Your task to perform on an android device: Go to eBay Image 0: 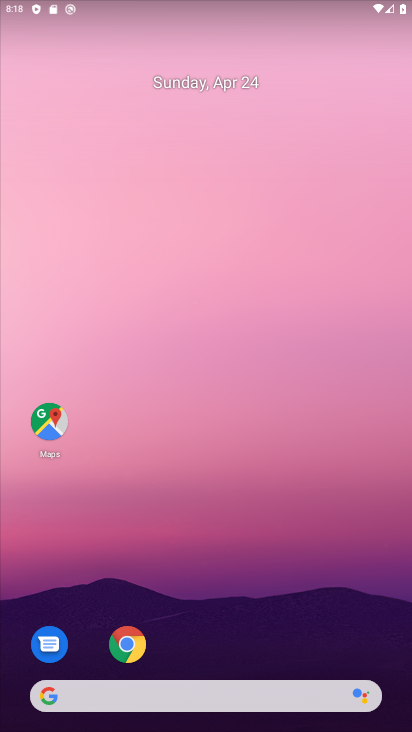
Step 0: drag from (343, 625) to (249, 223)
Your task to perform on an android device: Go to eBay Image 1: 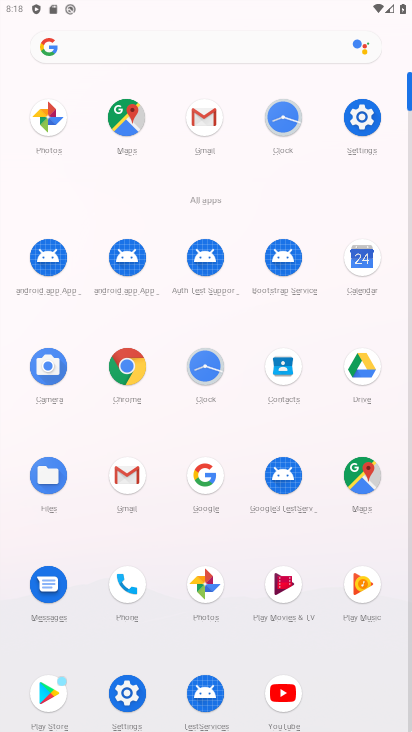
Step 1: click (129, 363)
Your task to perform on an android device: Go to eBay Image 2: 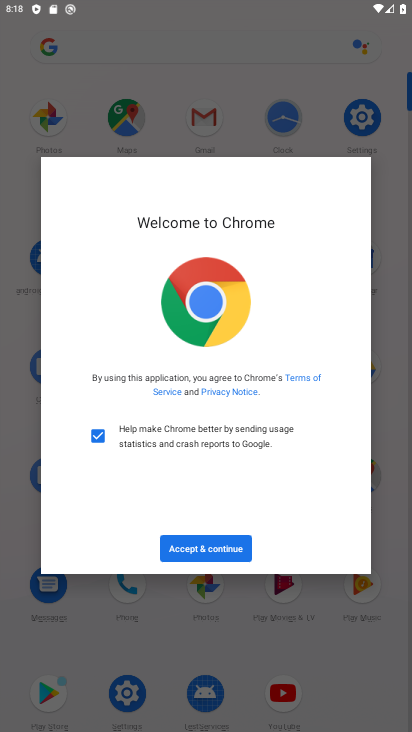
Step 2: click (181, 550)
Your task to perform on an android device: Go to eBay Image 3: 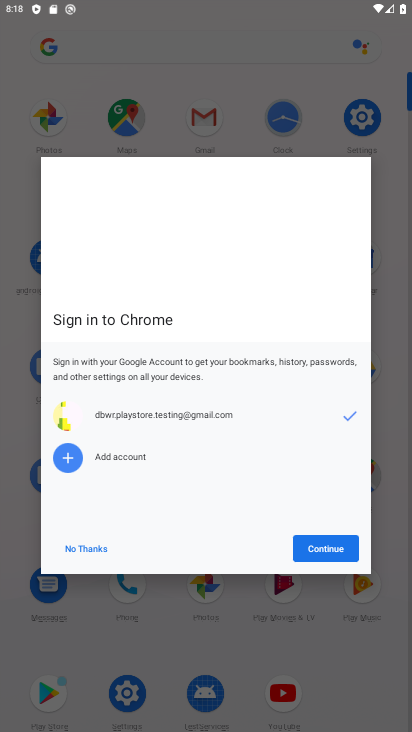
Step 3: click (352, 557)
Your task to perform on an android device: Go to eBay Image 4: 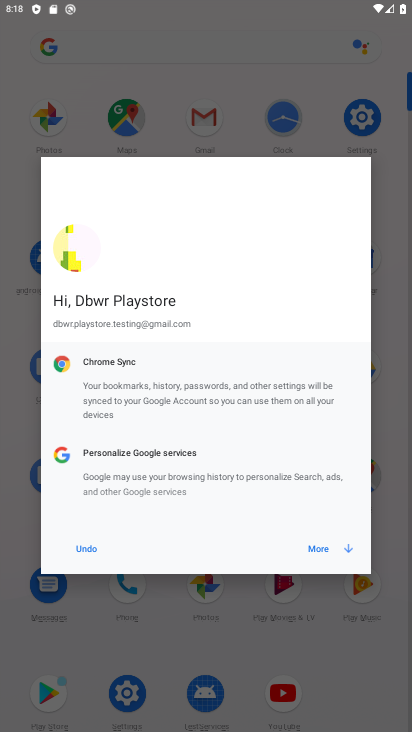
Step 4: click (344, 552)
Your task to perform on an android device: Go to eBay Image 5: 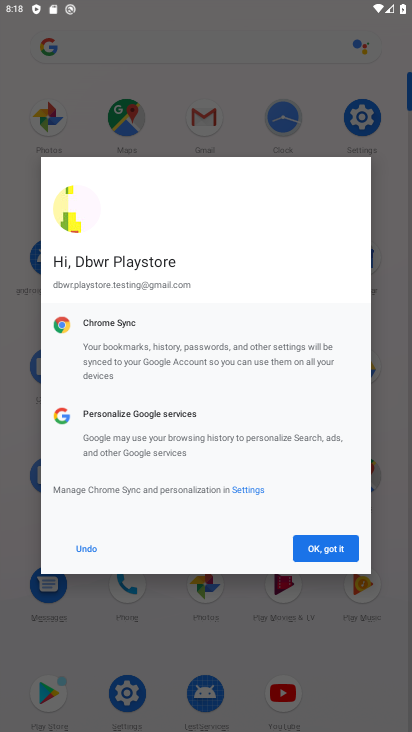
Step 5: click (344, 552)
Your task to perform on an android device: Go to eBay Image 6: 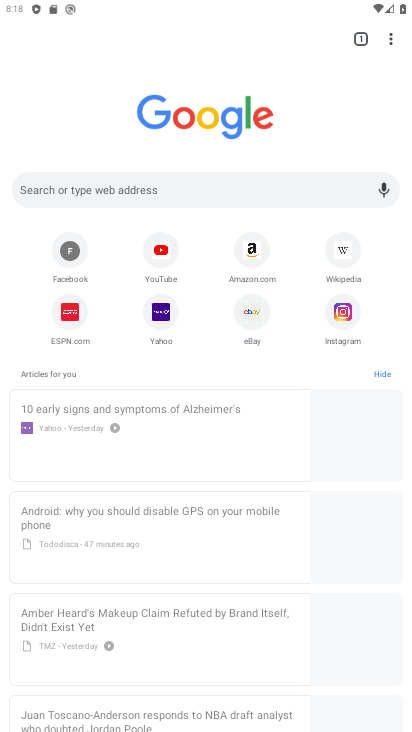
Step 6: click (253, 327)
Your task to perform on an android device: Go to eBay Image 7: 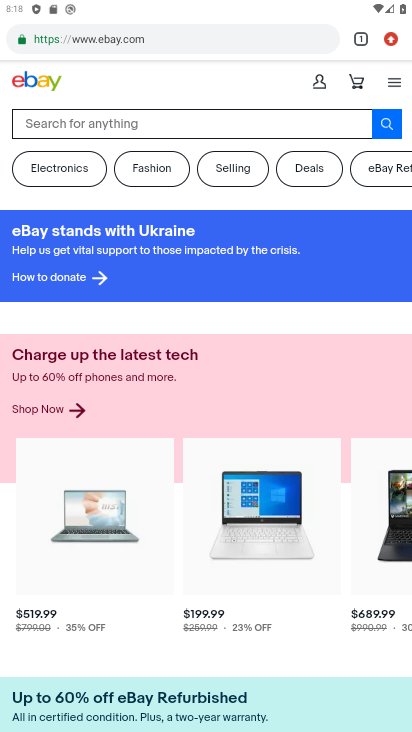
Step 7: task complete